Your task to perform on an android device: Open calendar and show me the fourth week of next month Image 0: 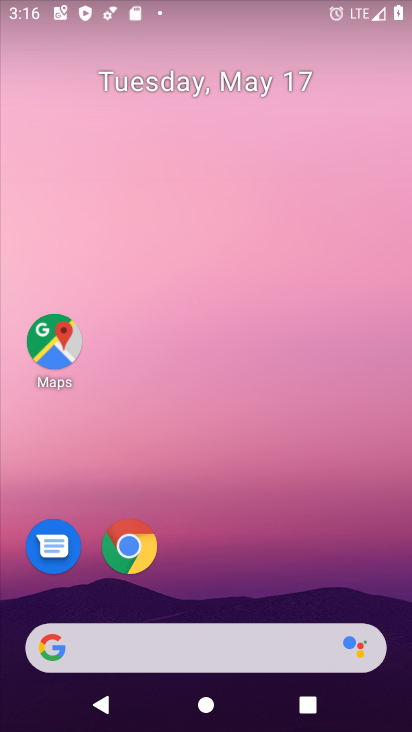
Step 0: press home button
Your task to perform on an android device: Open calendar and show me the fourth week of next month Image 1: 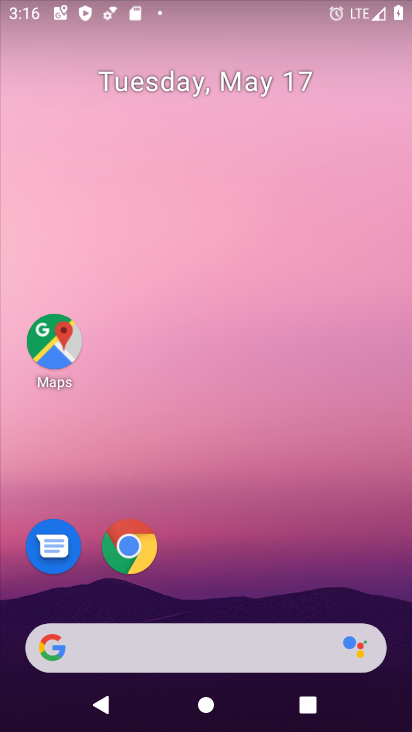
Step 1: drag from (289, 541) to (348, 88)
Your task to perform on an android device: Open calendar and show me the fourth week of next month Image 2: 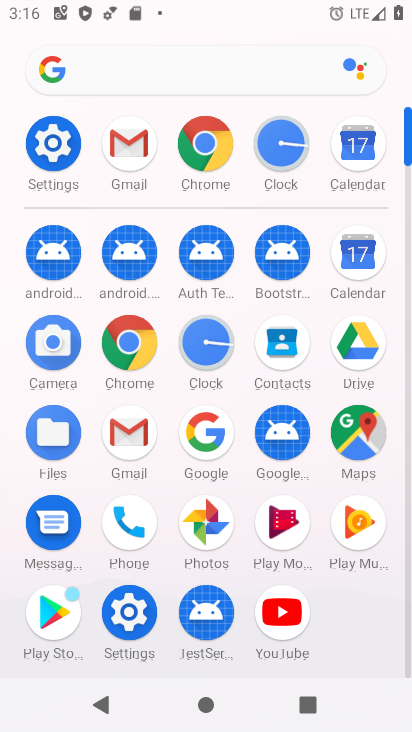
Step 2: click (353, 274)
Your task to perform on an android device: Open calendar and show me the fourth week of next month Image 3: 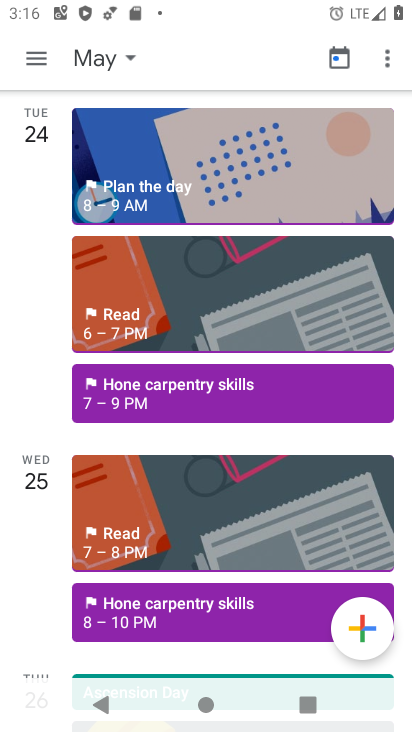
Step 3: click (134, 51)
Your task to perform on an android device: Open calendar and show me the fourth week of next month Image 4: 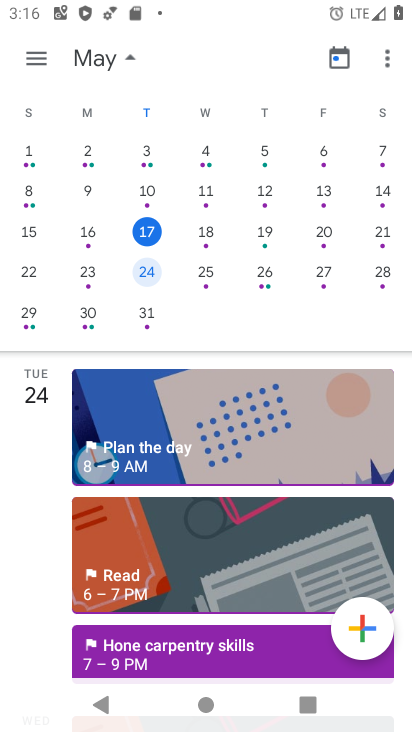
Step 4: drag from (347, 193) to (3, 196)
Your task to perform on an android device: Open calendar and show me the fourth week of next month Image 5: 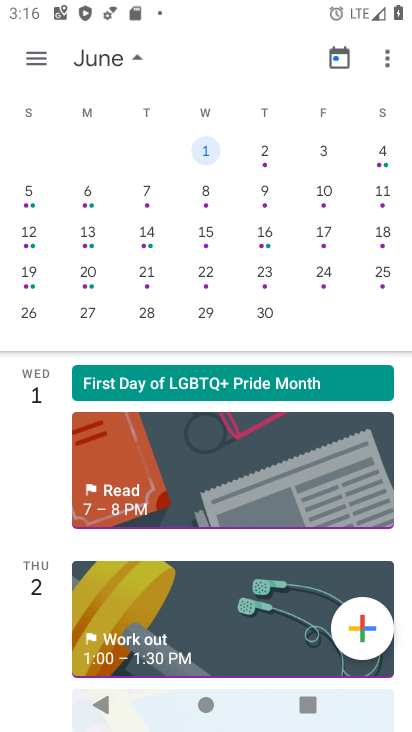
Step 5: click (200, 271)
Your task to perform on an android device: Open calendar and show me the fourth week of next month Image 6: 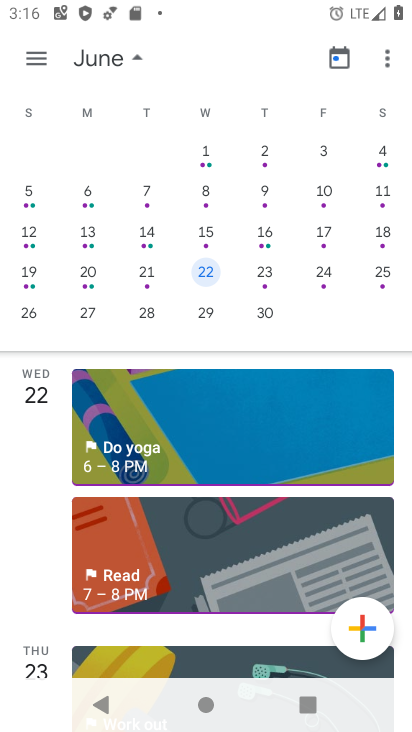
Step 6: task complete